Your task to perform on an android device: set default search engine in the chrome app Image 0: 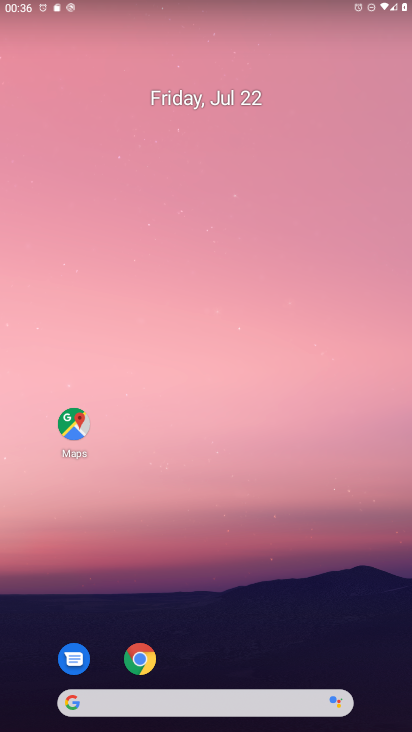
Step 0: click (143, 661)
Your task to perform on an android device: set default search engine in the chrome app Image 1: 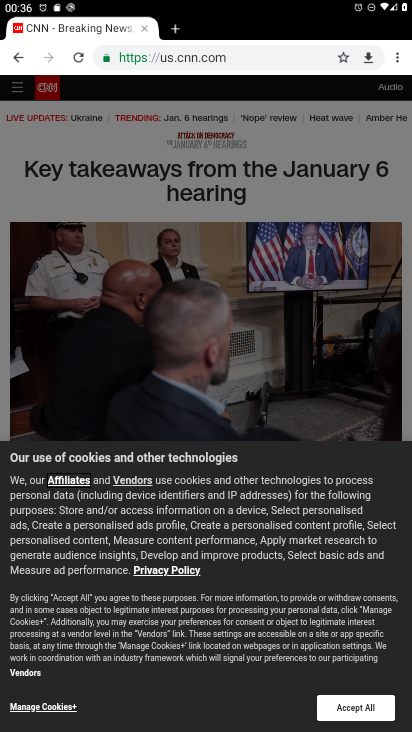
Step 1: click (398, 54)
Your task to perform on an android device: set default search engine in the chrome app Image 2: 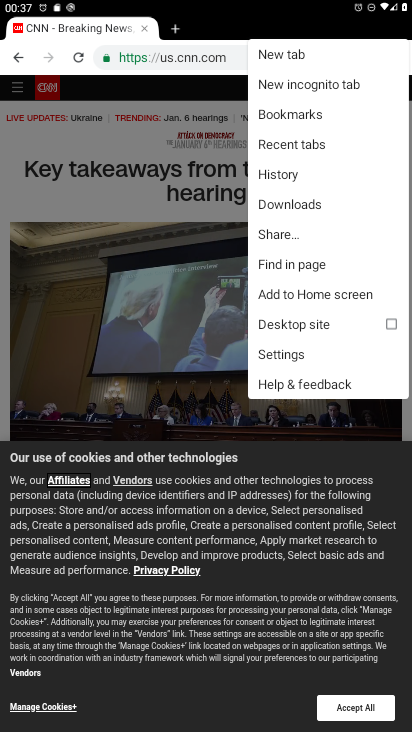
Step 2: click (286, 355)
Your task to perform on an android device: set default search engine in the chrome app Image 3: 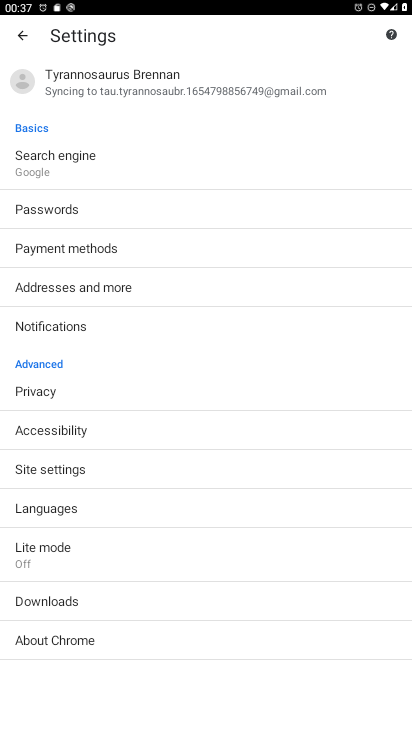
Step 3: click (77, 161)
Your task to perform on an android device: set default search engine in the chrome app Image 4: 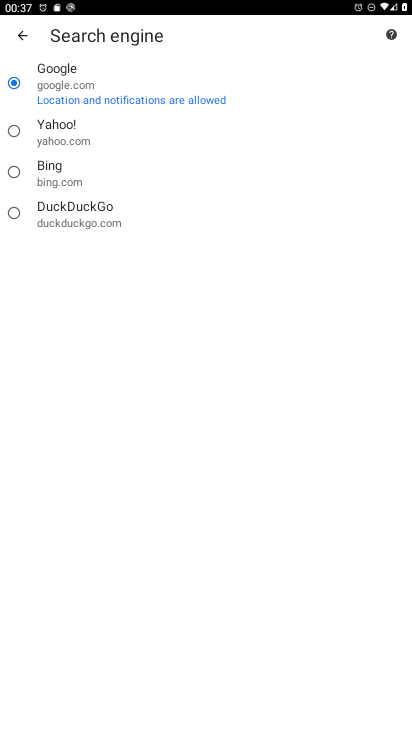
Step 4: click (13, 88)
Your task to perform on an android device: set default search engine in the chrome app Image 5: 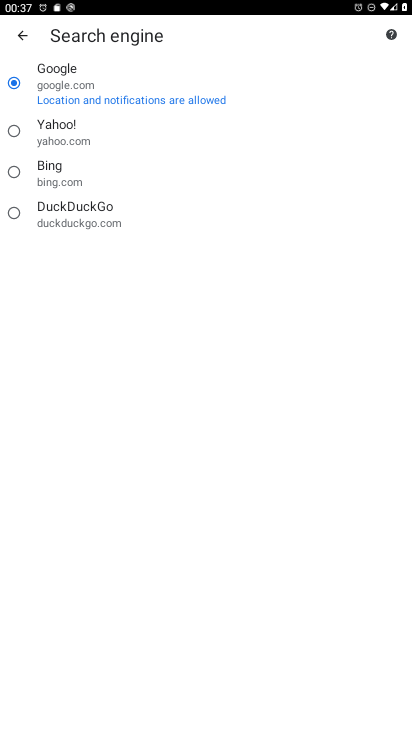
Step 5: task complete